Your task to perform on an android device: turn on notifications settings in the gmail app Image 0: 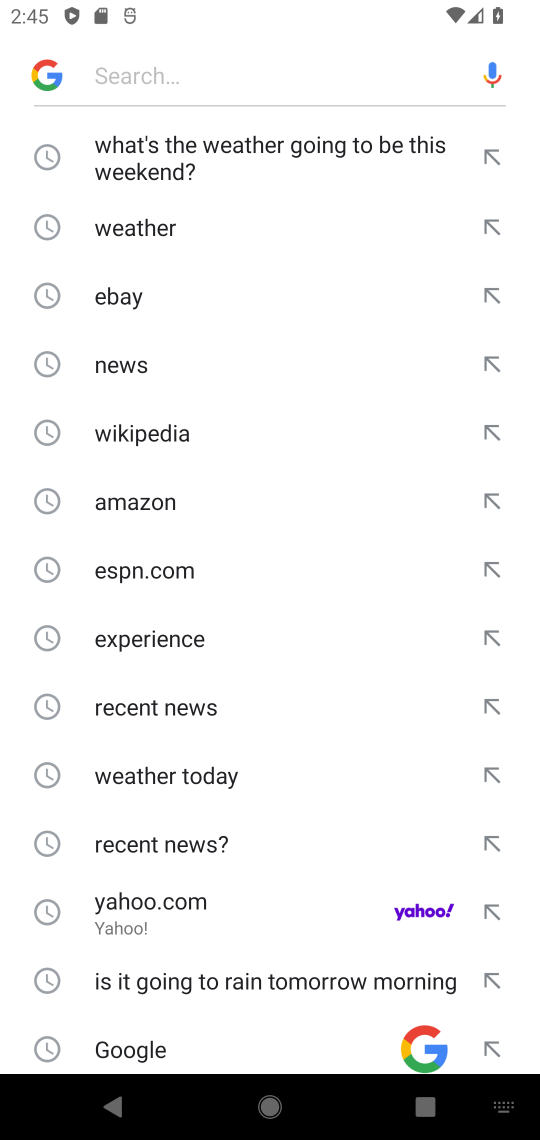
Step 0: press home button
Your task to perform on an android device: turn on notifications settings in the gmail app Image 1: 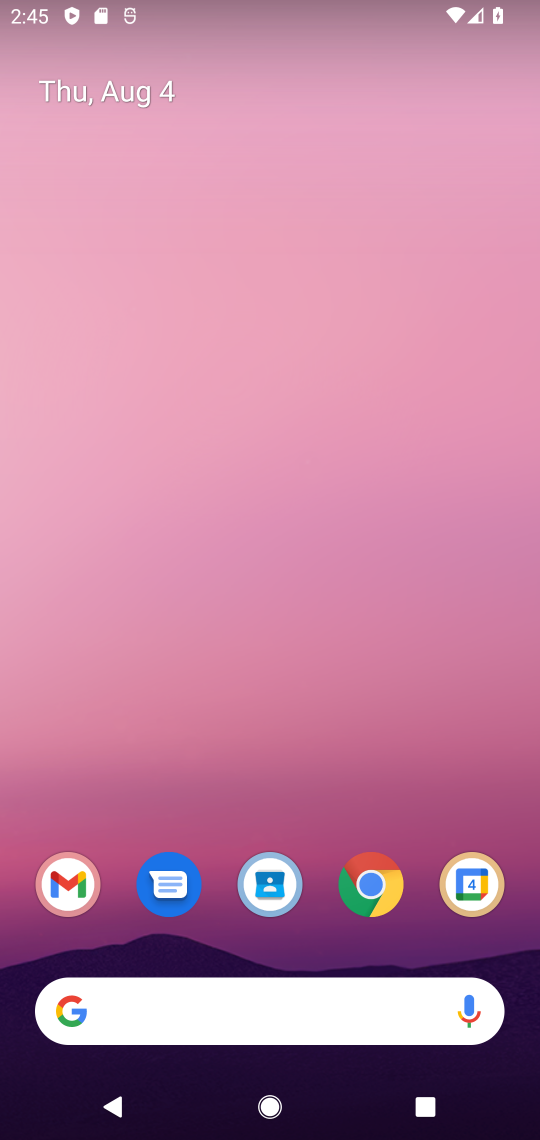
Step 1: drag from (197, 957) to (283, 219)
Your task to perform on an android device: turn on notifications settings in the gmail app Image 2: 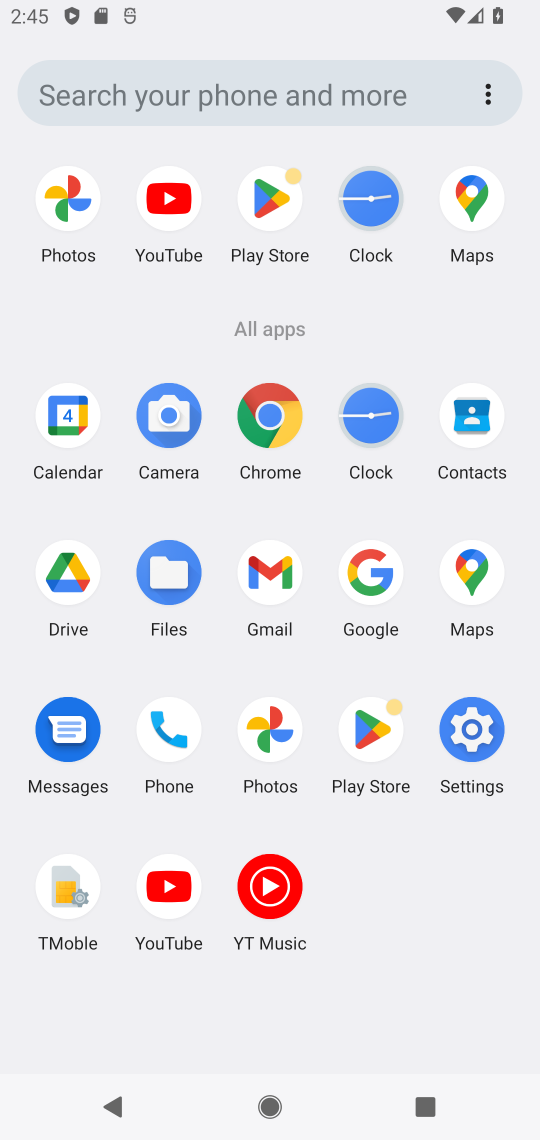
Step 2: click (268, 558)
Your task to perform on an android device: turn on notifications settings in the gmail app Image 3: 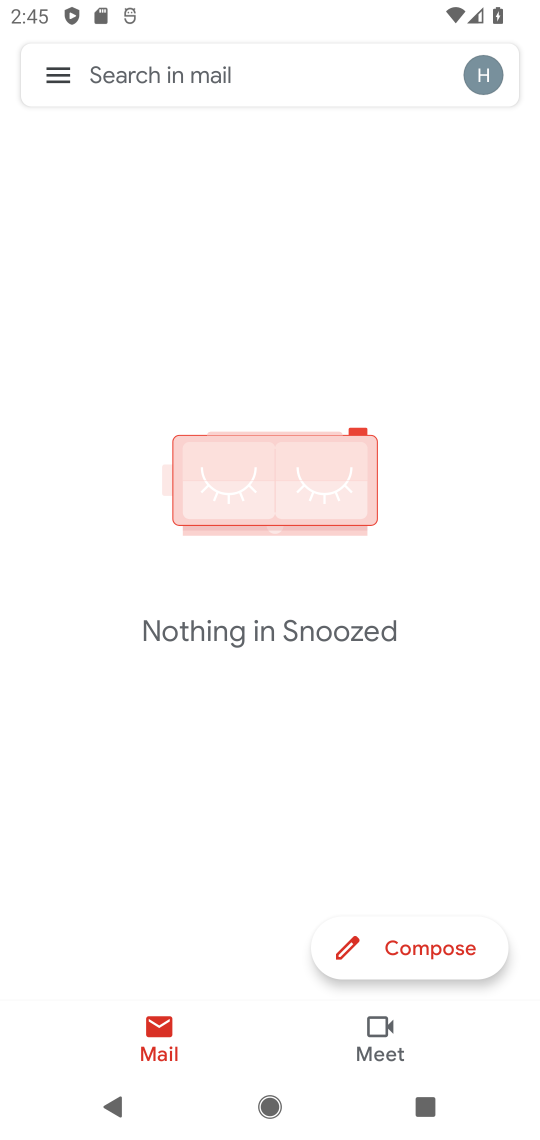
Step 3: click (56, 78)
Your task to perform on an android device: turn on notifications settings in the gmail app Image 4: 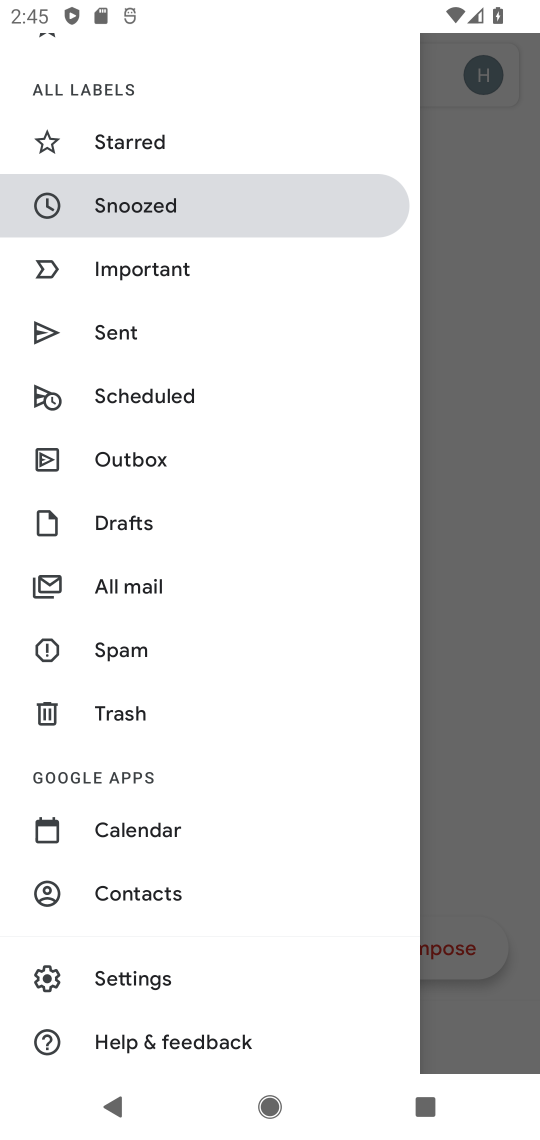
Step 4: click (134, 991)
Your task to perform on an android device: turn on notifications settings in the gmail app Image 5: 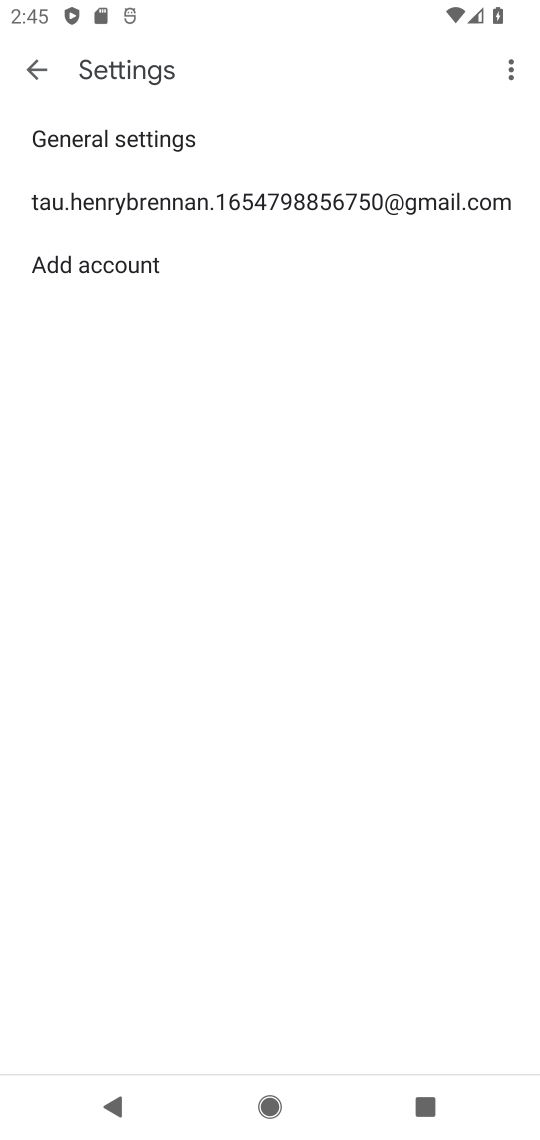
Step 5: click (129, 212)
Your task to perform on an android device: turn on notifications settings in the gmail app Image 6: 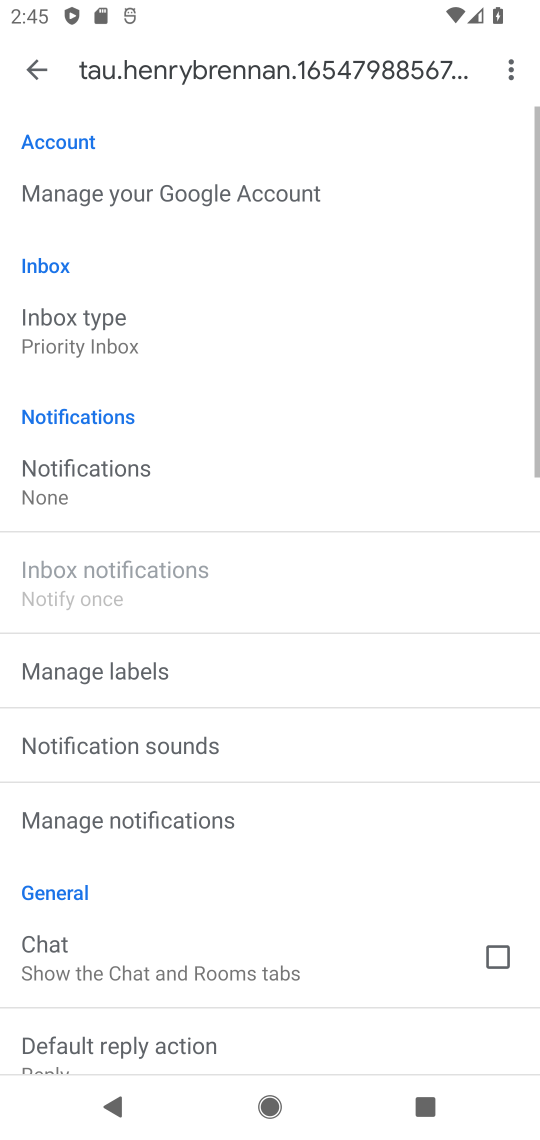
Step 6: click (114, 466)
Your task to perform on an android device: turn on notifications settings in the gmail app Image 7: 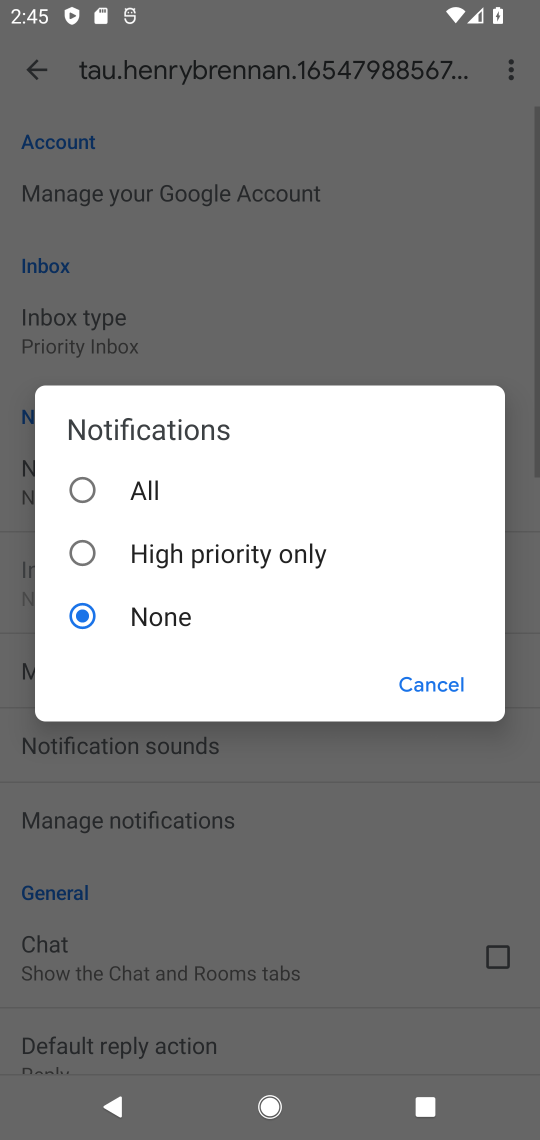
Step 7: click (93, 495)
Your task to perform on an android device: turn on notifications settings in the gmail app Image 8: 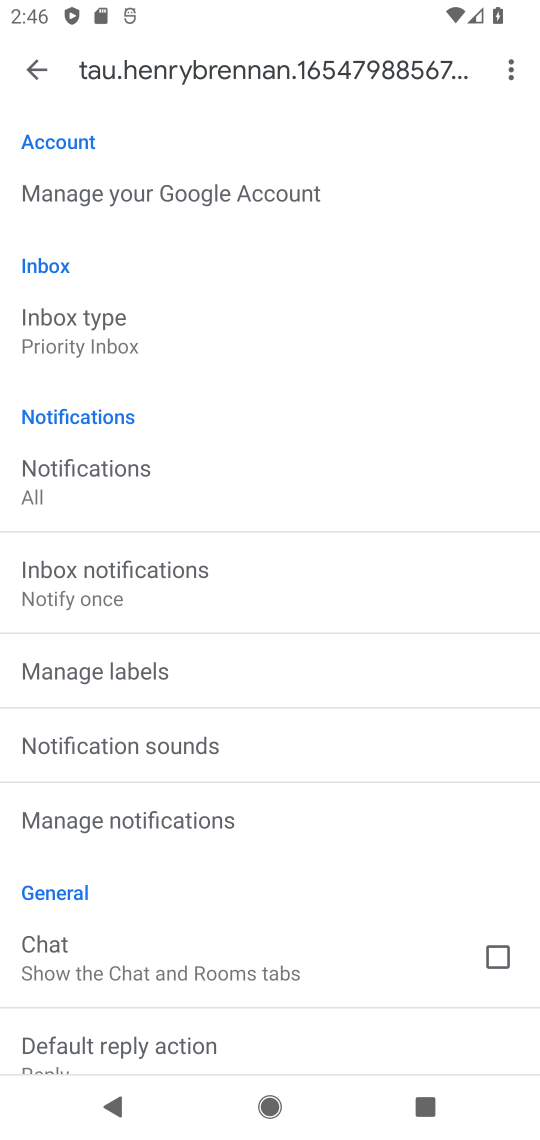
Step 8: task complete